Your task to perform on an android device: change alarm snooze length Image 0: 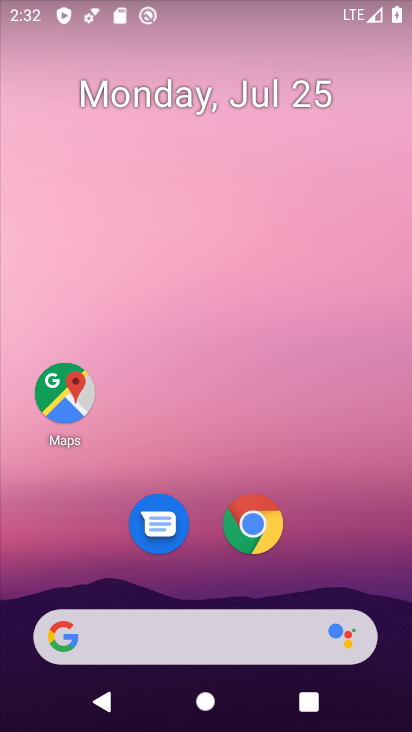
Step 0: drag from (338, 535) to (403, 28)
Your task to perform on an android device: change alarm snooze length Image 1: 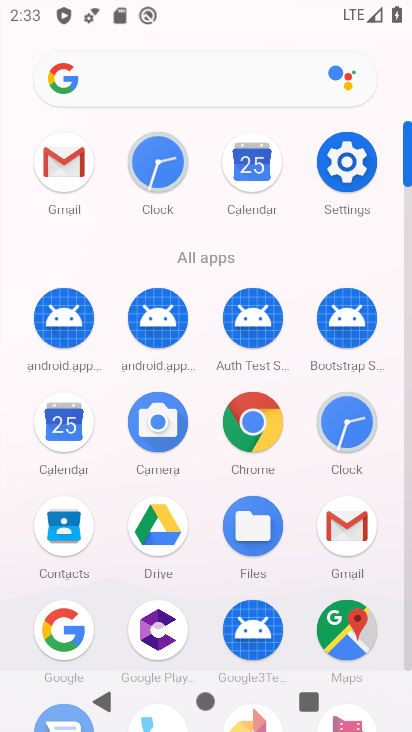
Step 1: click (343, 159)
Your task to perform on an android device: change alarm snooze length Image 2: 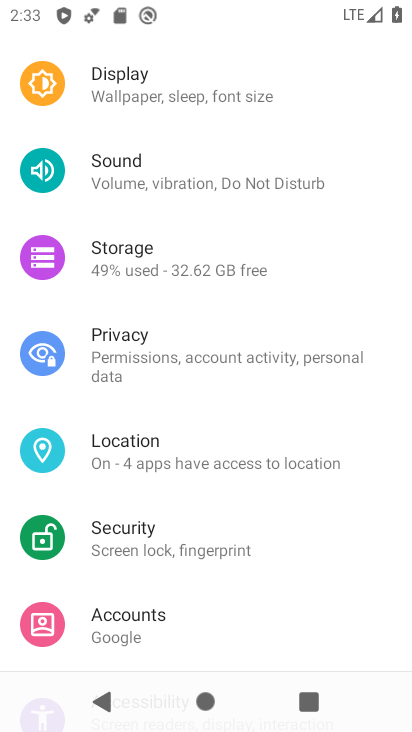
Step 2: press home button
Your task to perform on an android device: change alarm snooze length Image 3: 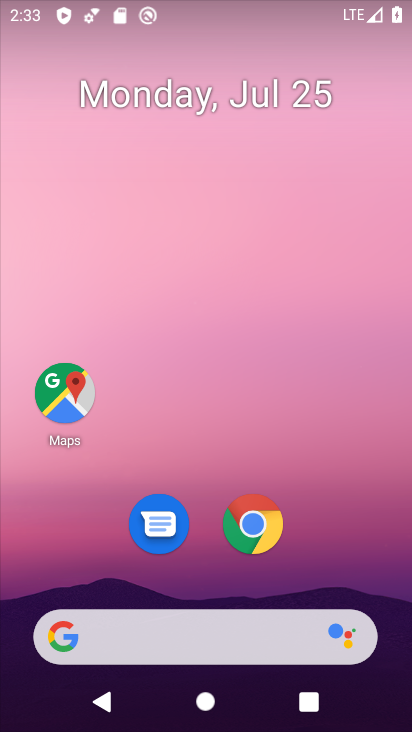
Step 3: drag from (364, 578) to (376, 53)
Your task to perform on an android device: change alarm snooze length Image 4: 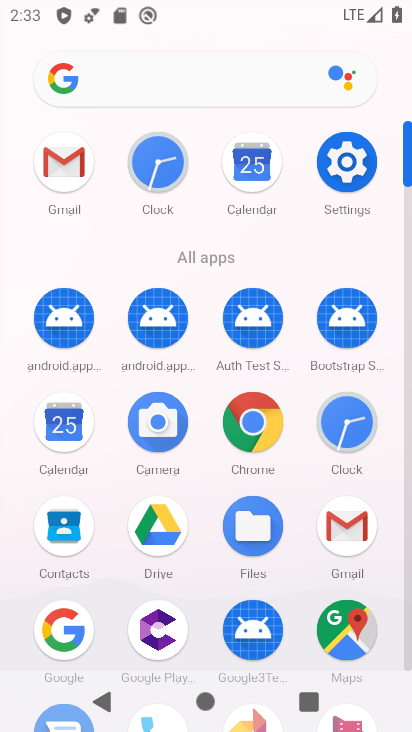
Step 4: click (137, 171)
Your task to perform on an android device: change alarm snooze length Image 5: 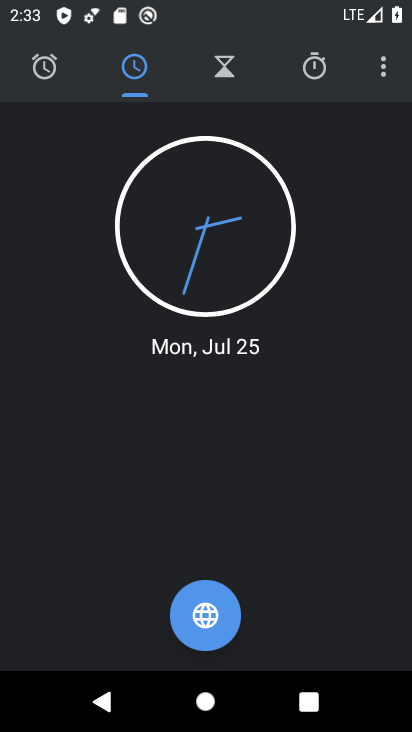
Step 5: click (385, 71)
Your task to perform on an android device: change alarm snooze length Image 6: 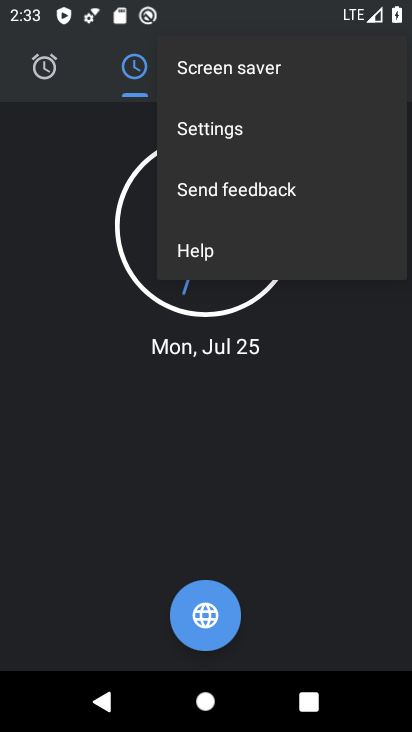
Step 6: click (284, 133)
Your task to perform on an android device: change alarm snooze length Image 7: 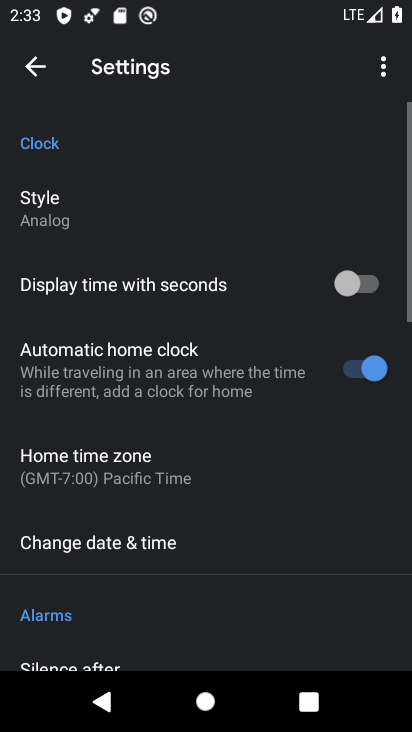
Step 7: drag from (230, 514) to (252, 10)
Your task to perform on an android device: change alarm snooze length Image 8: 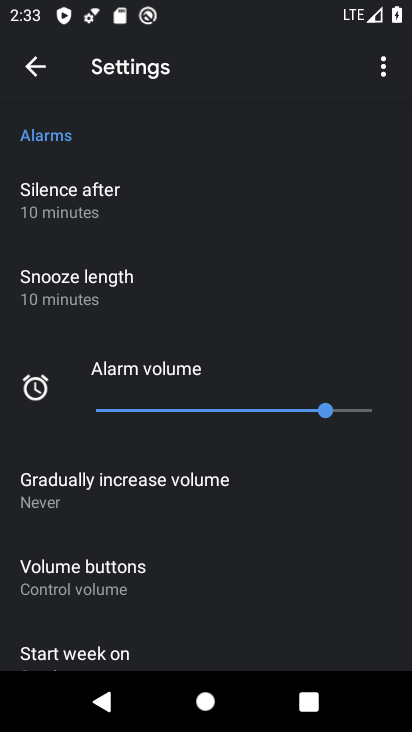
Step 8: drag from (214, 539) to (216, 233)
Your task to perform on an android device: change alarm snooze length Image 9: 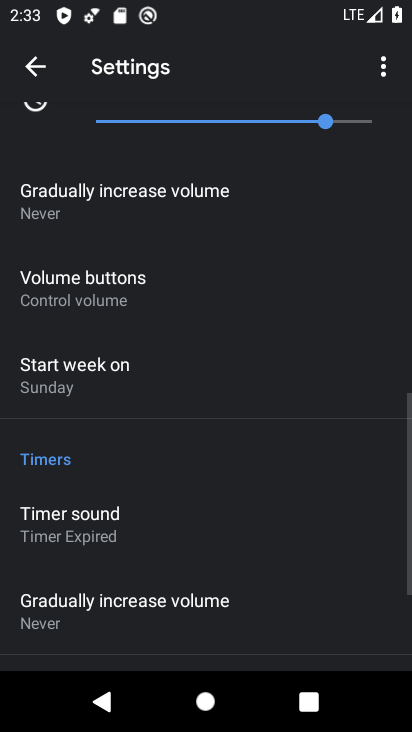
Step 9: drag from (214, 237) to (227, 516)
Your task to perform on an android device: change alarm snooze length Image 10: 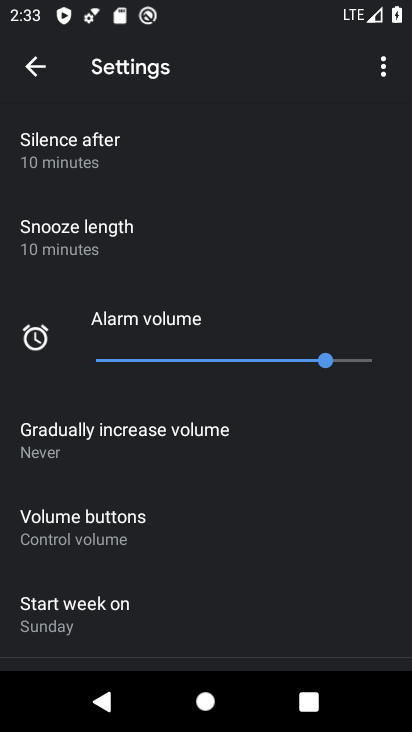
Step 10: click (111, 241)
Your task to perform on an android device: change alarm snooze length Image 11: 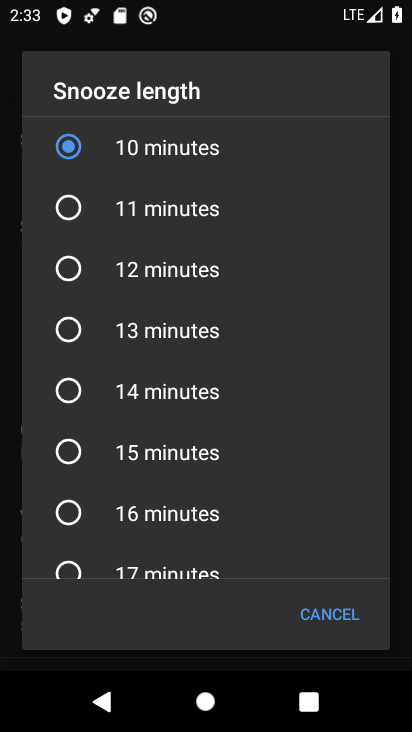
Step 11: click (71, 262)
Your task to perform on an android device: change alarm snooze length Image 12: 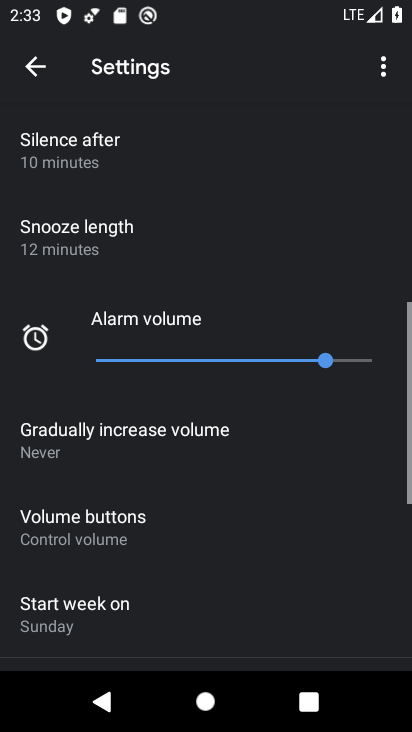
Step 12: task complete